Your task to perform on an android device: Go to location settings Image 0: 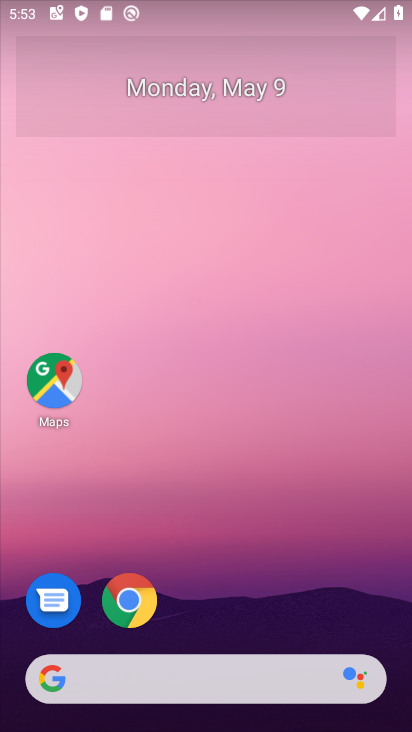
Step 0: drag from (228, 569) to (222, 53)
Your task to perform on an android device: Go to location settings Image 1: 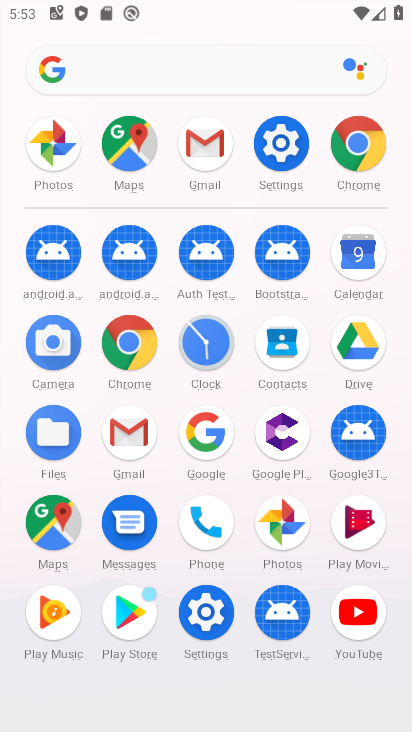
Step 1: click (291, 152)
Your task to perform on an android device: Go to location settings Image 2: 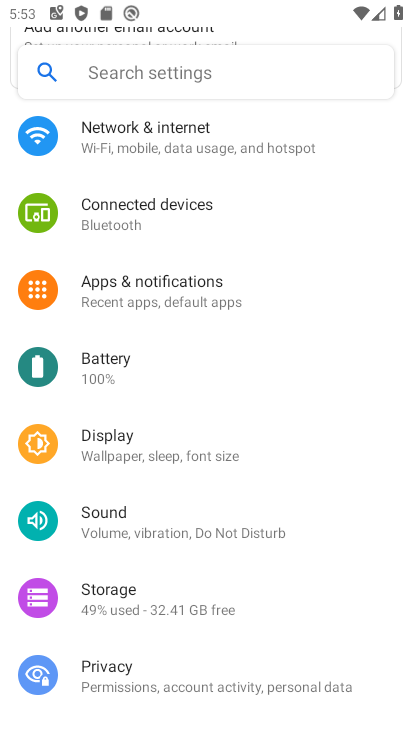
Step 2: drag from (145, 599) to (199, 335)
Your task to perform on an android device: Go to location settings Image 3: 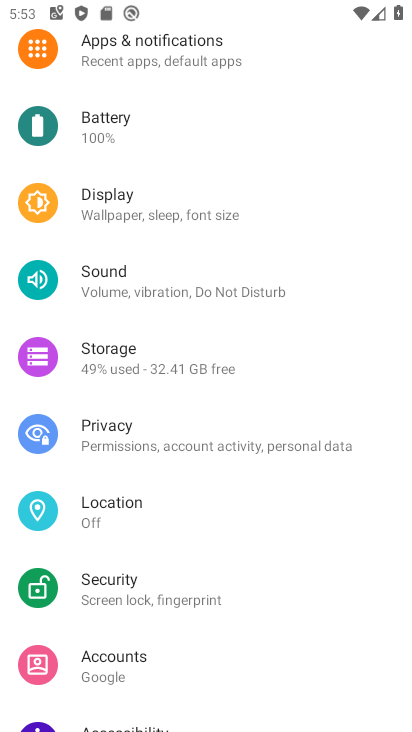
Step 3: click (131, 511)
Your task to perform on an android device: Go to location settings Image 4: 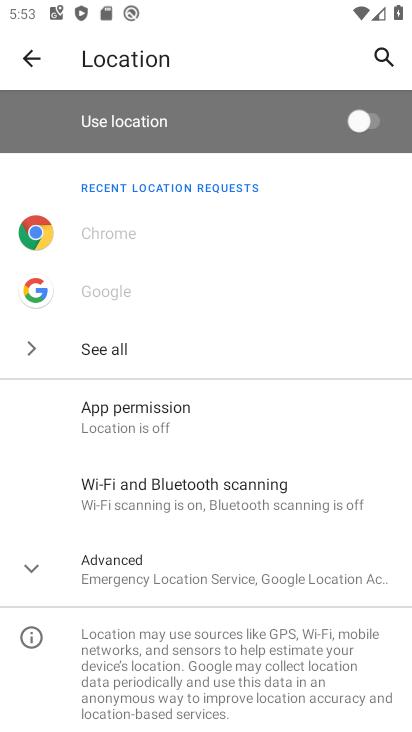
Step 4: click (150, 576)
Your task to perform on an android device: Go to location settings Image 5: 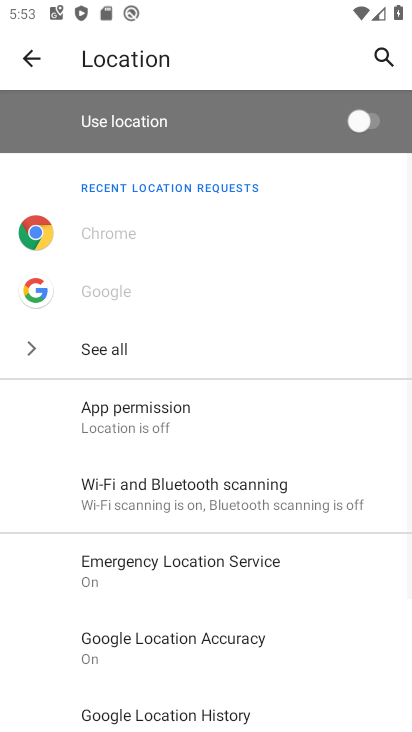
Step 5: task complete